Your task to perform on an android device: visit the assistant section in the google photos Image 0: 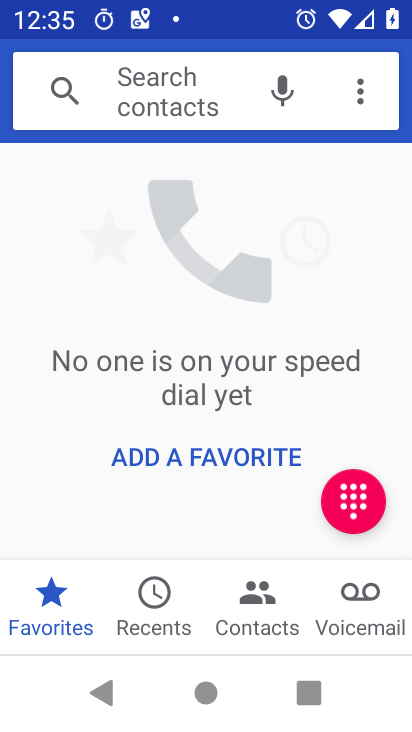
Step 0: press home button
Your task to perform on an android device: visit the assistant section in the google photos Image 1: 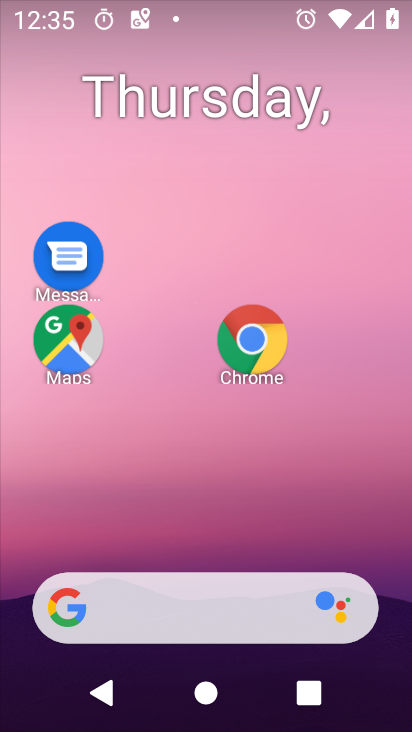
Step 1: drag from (241, 479) to (280, 75)
Your task to perform on an android device: visit the assistant section in the google photos Image 2: 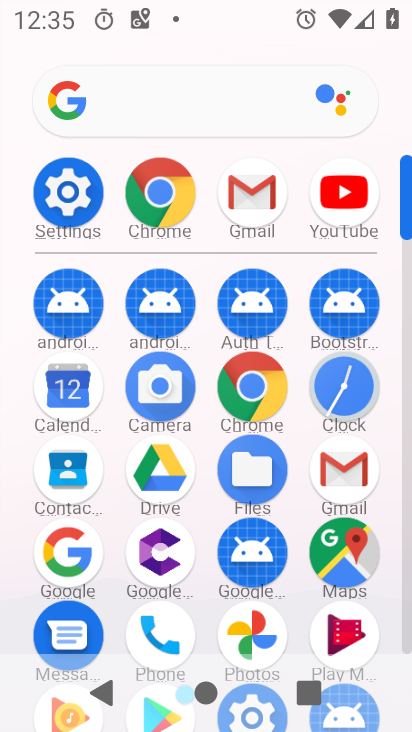
Step 2: drag from (117, 590) to (151, 287)
Your task to perform on an android device: visit the assistant section in the google photos Image 3: 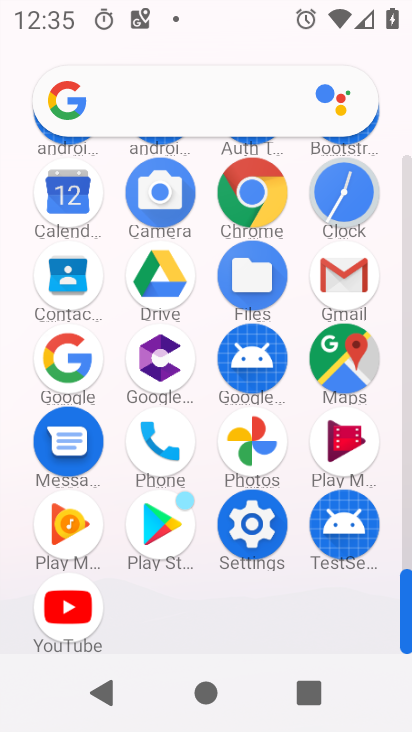
Step 3: click (258, 442)
Your task to perform on an android device: visit the assistant section in the google photos Image 4: 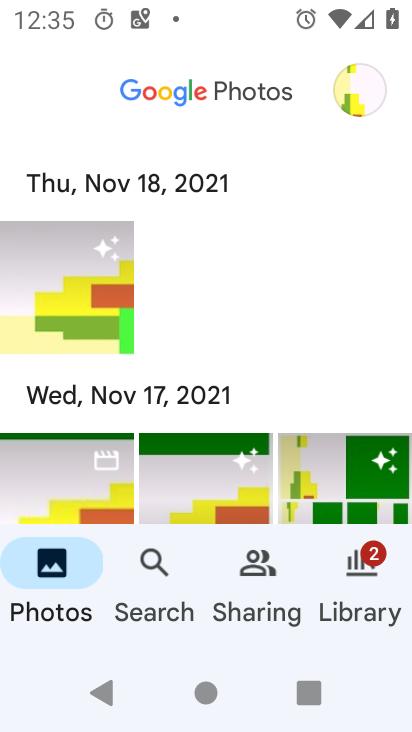
Step 4: drag from (358, 588) to (344, 312)
Your task to perform on an android device: visit the assistant section in the google photos Image 5: 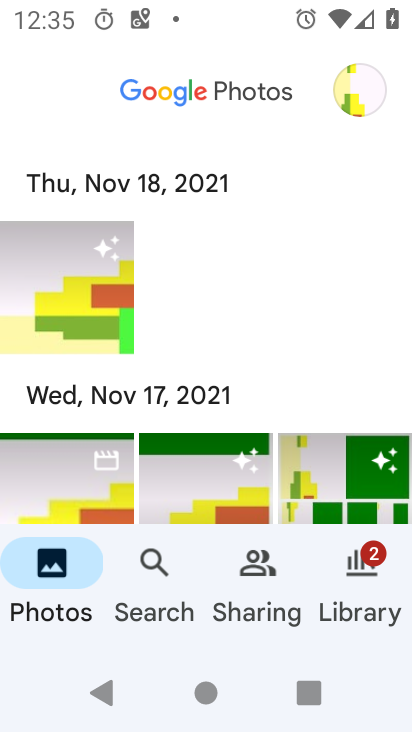
Step 5: click (364, 588)
Your task to perform on an android device: visit the assistant section in the google photos Image 6: 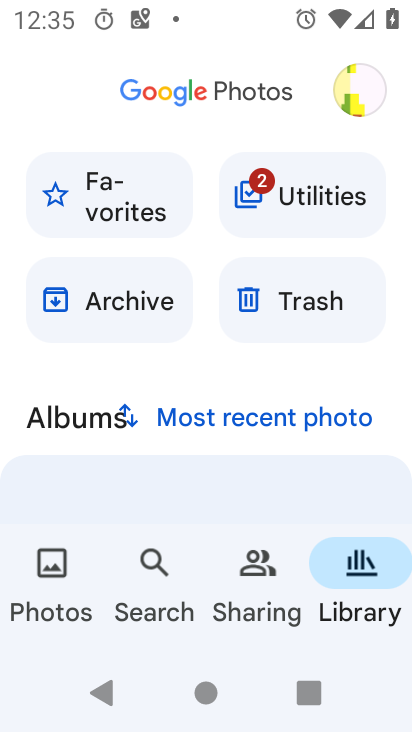
Step 6: drag from (223, 360) to (269, 531)
Your task to perform on an android device: visit the assistant section in the google photos Image 7: 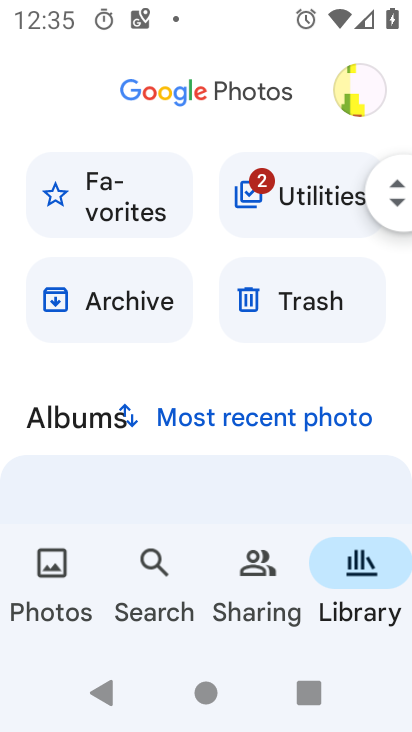
Step 7: click (259, 607)
Your task to perform on an android device: visit the assistant section in the google photos Image 8: 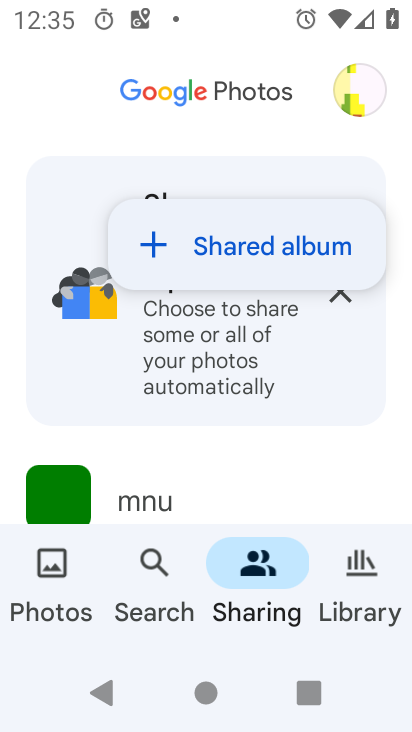
Step 8: click (157, 604)
Your task to perform on an android device: visit the assistant section in the google photos Image 9: 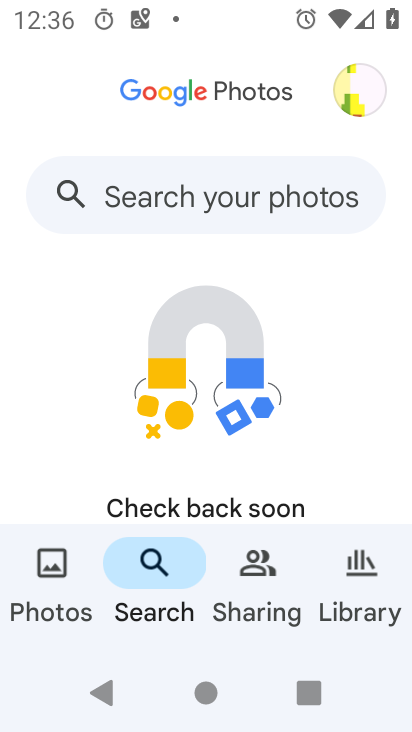
Step 9: click (345, 591)
Your task to perform on an android device: visit the assistant section in the google photos Image 10: 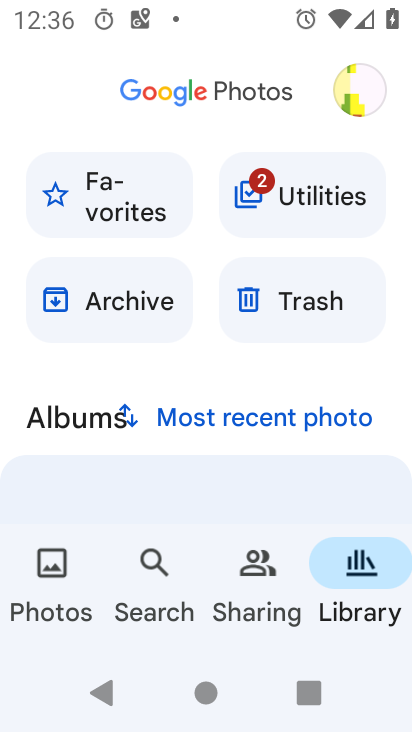
Step 10: task complete